Your task to perform on an android device: View the shopping cart on amazon.com. Add "apple airpods pro" to the cart on amazon.com Image 0: 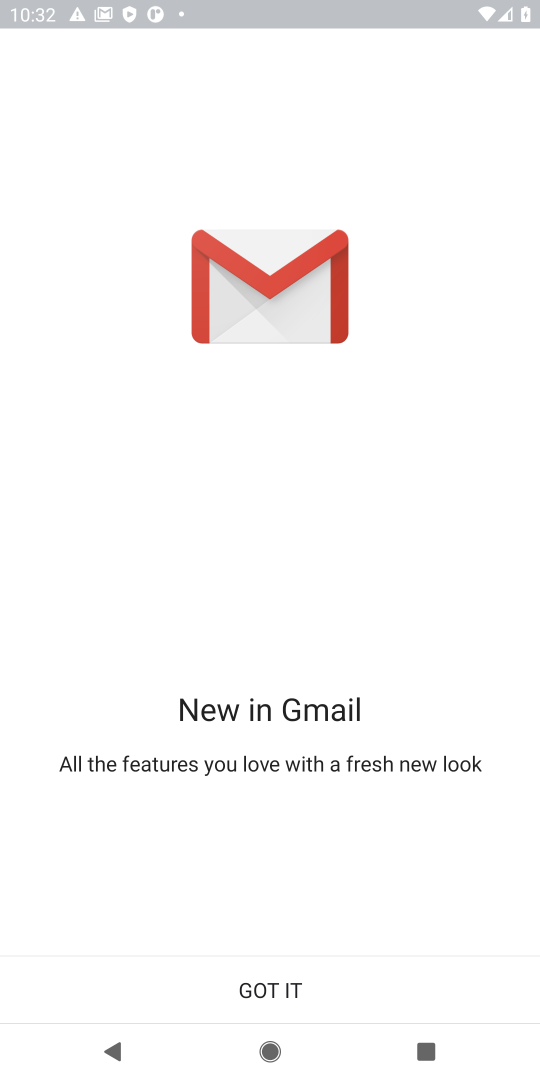
Step 0: press home button
Your task to perform on an android device: View the shopping cart on amazon.com. Add "apple airpods pro" to the cart on amazon.com Image 1: 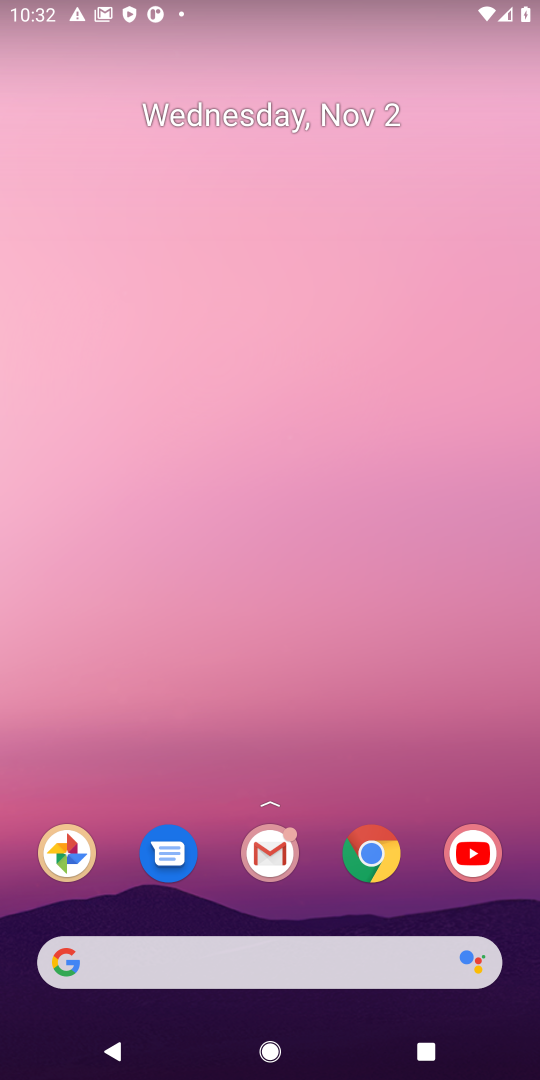
Step 1: click (371, 845)
Your task to perform on an android device: View the shopping cart on amazon.com. Add "apple airpods pro" to the cart on amazon.com Image 2: 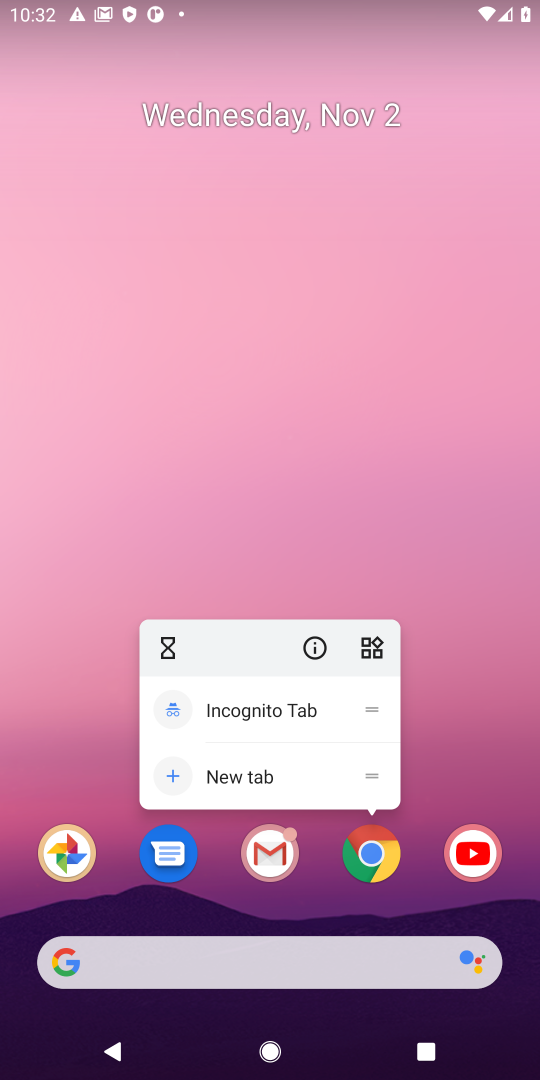
Step 2: click (371, 847)
Your task to perform on an android device: View the shopping cart on amazon.com. Add "apple airpods pro" to the cart on amazon.com Image 3: 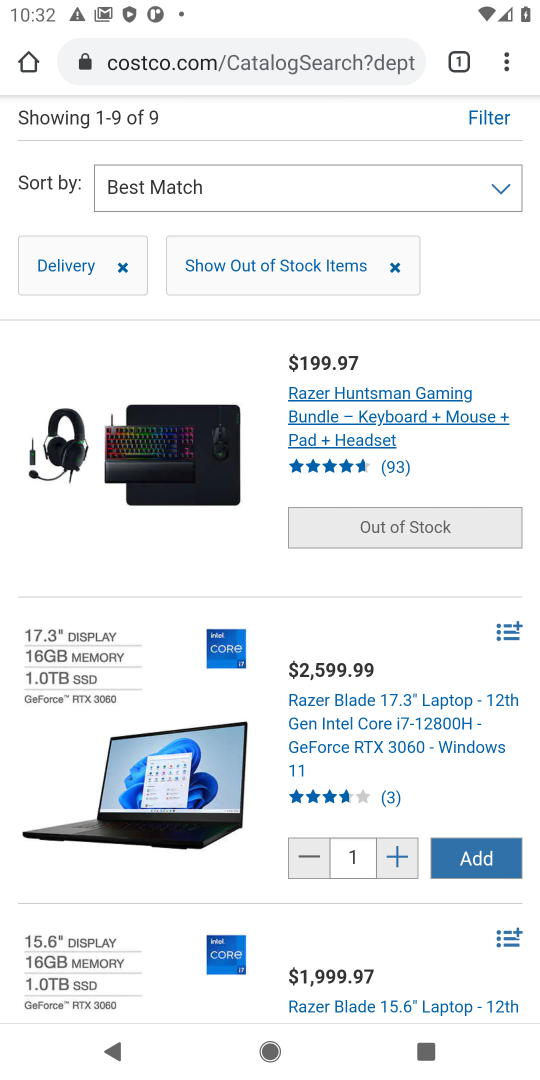
Step 3: click (310, 59)
Your task to perform on an android device: View the shopping cart on amazon.com. Add "apple airpods pro" to the cart on amazon.com Image 4: 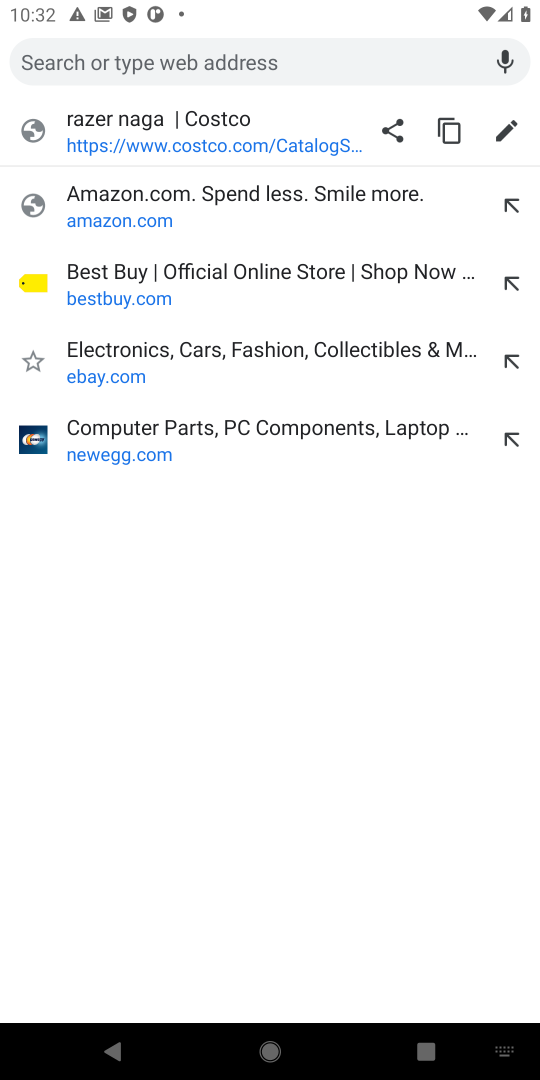
Step 4: click (133, 225)
Your task to perform on an android device: View the shopping cart on amazon.com. Add "apple airpods pro" to the cart on amazon.com Image 5: 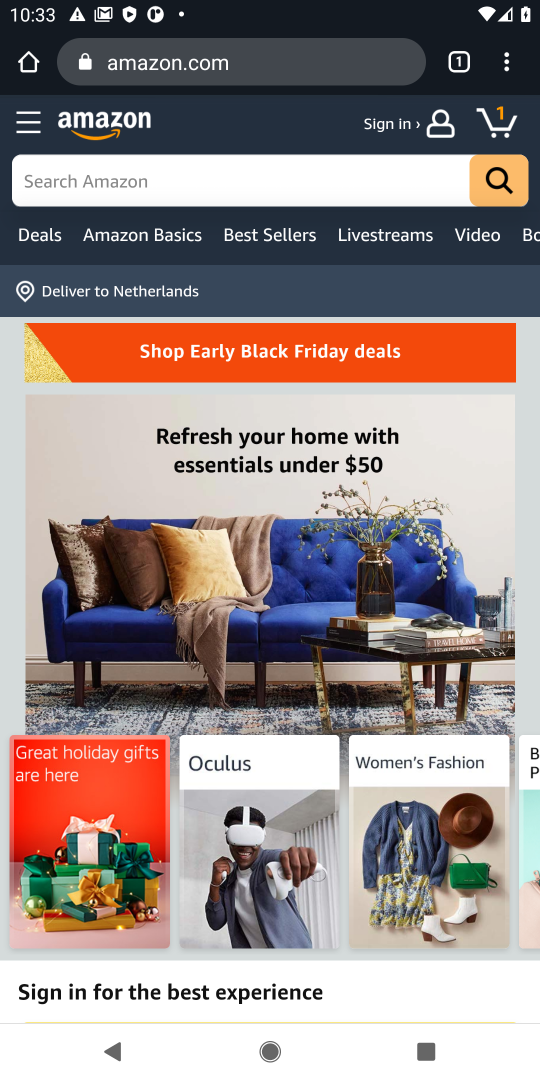
Step 5: click (213, 185)
Your task to perform on an android device: View the shopping cart on amazon.com. Add "apple airpods pro" to the cart on amazon.com Image 6: 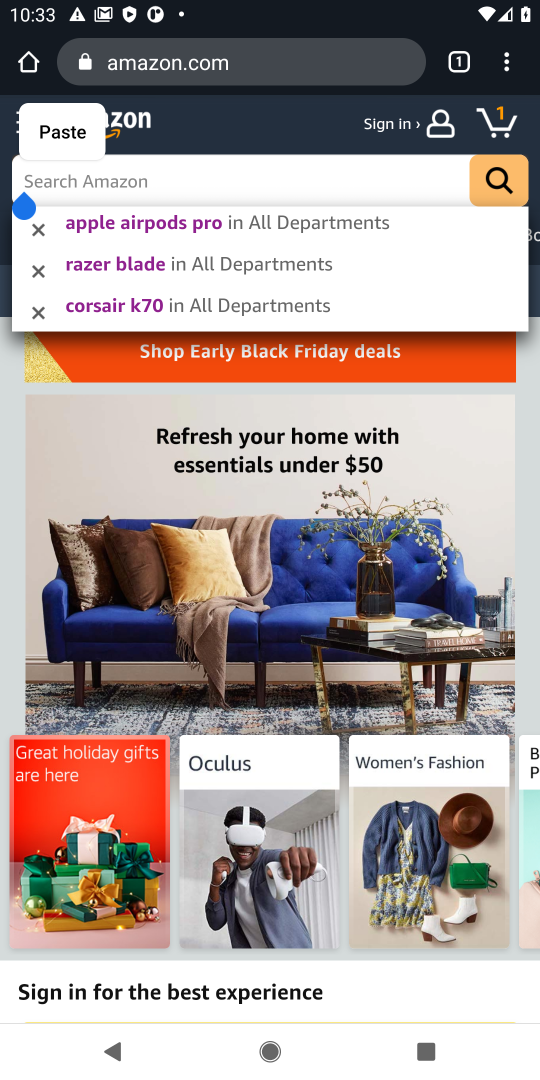
Step 6: type "apple airpods pro"
Your task to perform on an android device: View the shopping cart on amazon.com. Add "apple airpods pro" to the cart on amazon.com Image 7: 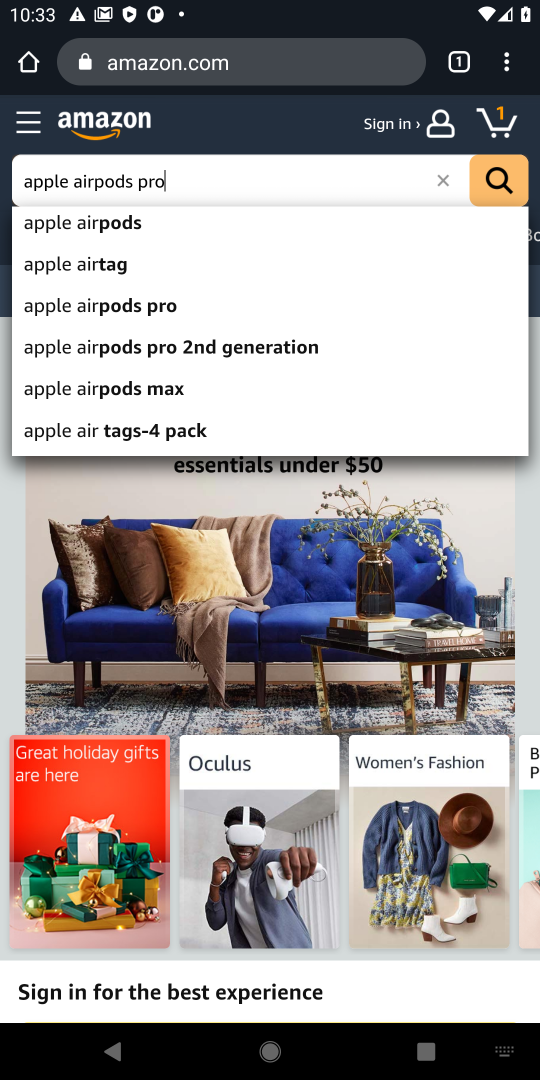
Step 7: press enter
Your task to perform on an android device: View the shopping cart on amazon.com. Add "apple airpods pro" to the cart on amazon.com Image 8: 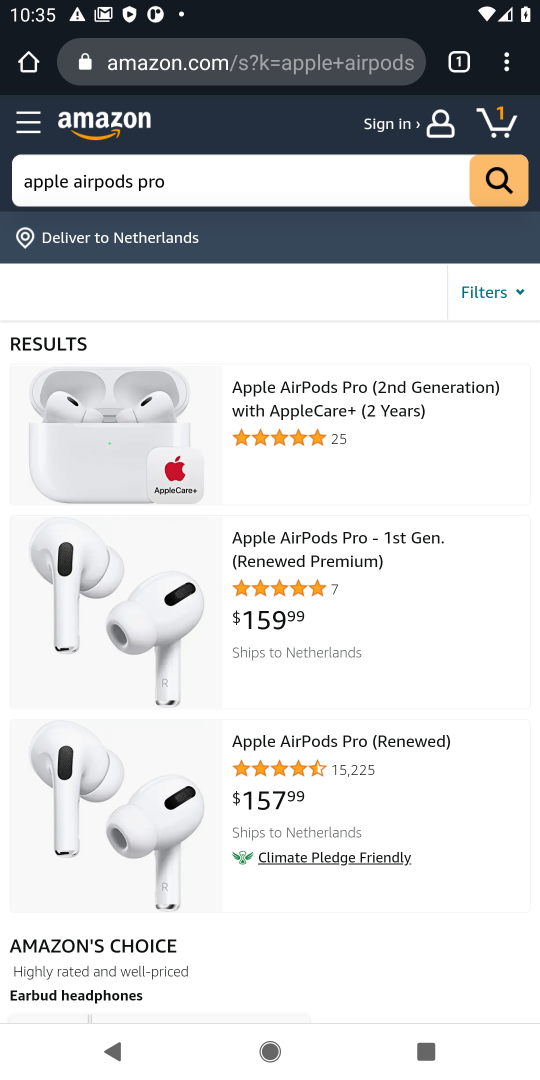
Step 8: click (361, 417)
Your task to perform on an android device: View the shopping cart on amazon.com. Add "apple airpods pro" to the cart on amazon.com Image 9: 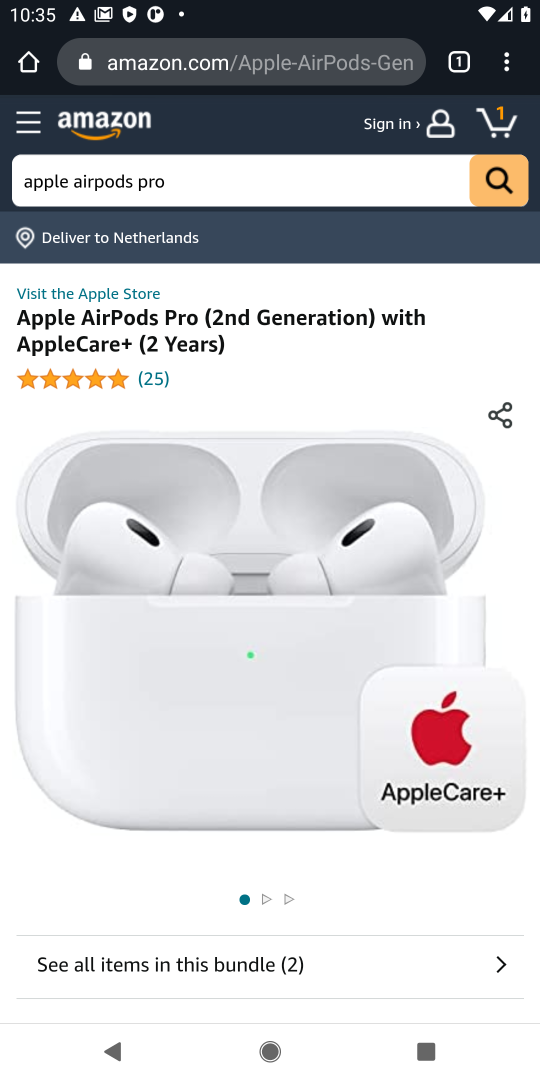
Step 9: task complete